Your task to perform on an android device: turn off wifi Image 0: 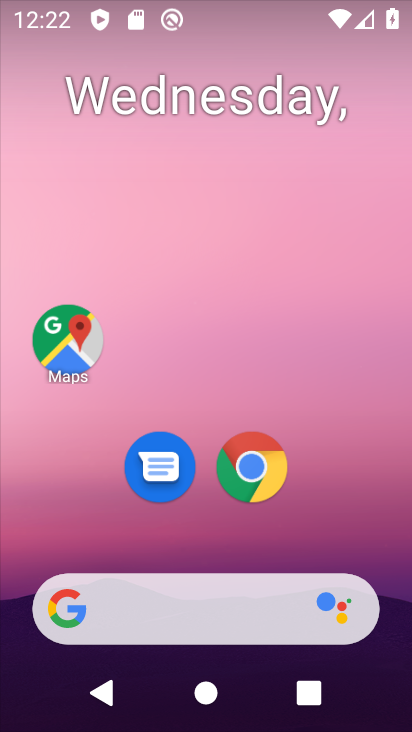
Step 0: drag from (356, 506) to (354, 74)
Your task to perform on an android device: turn off wifi Image 1: 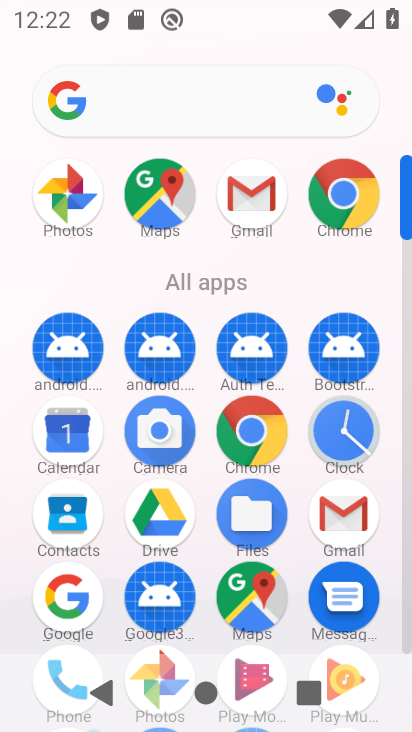
Step 1: drag from (298, 566) to (305, 283)
Your task to perform on an android device: turn off wifi Image 2: 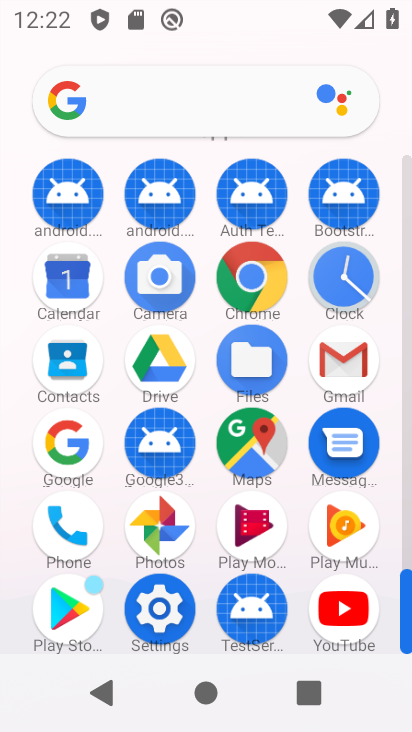
Step 2: click (174, 637)
Your task to perform on an android device: turn off wifi Image 3: 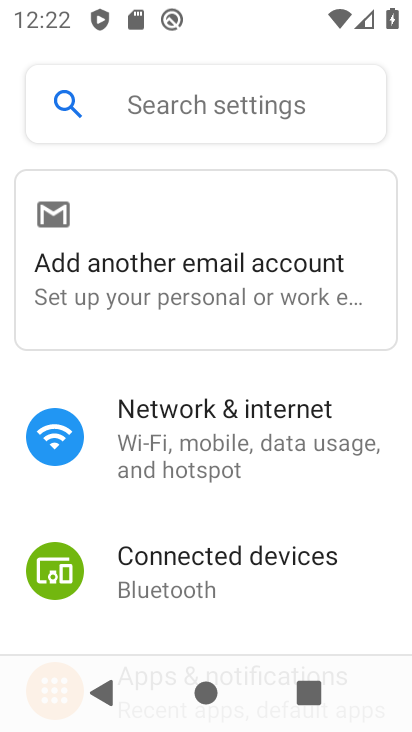
Step 3: click (309, 457)
Your task to perform on an android device: turn off wifi Image 4: 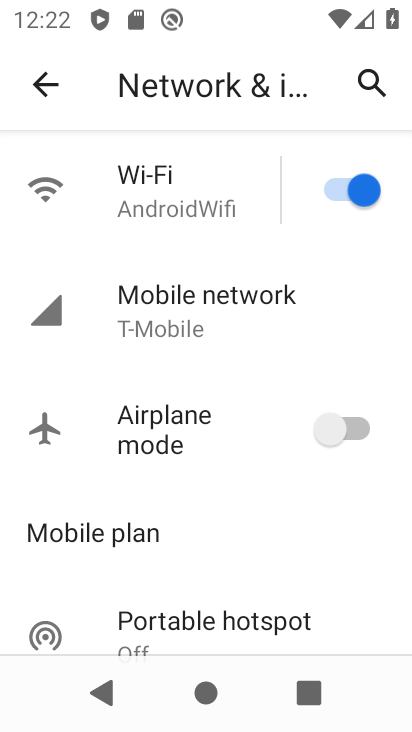
Step 4: click (335, 207)
Your task to perform on an android device: turn off wifi Image 5: 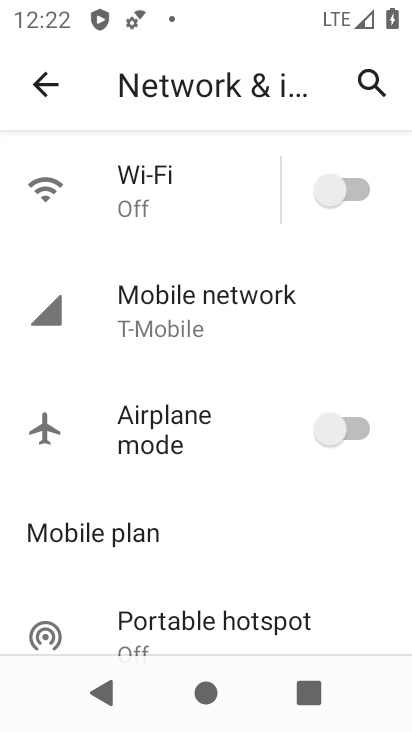
Step 5: task complete